Your task to perform on an android device: see creations saved in the google photos Image 0: 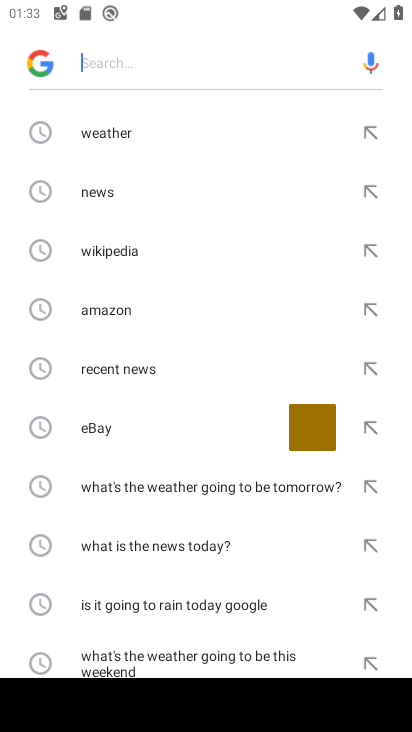
Step 0: press home button
Your task to perform on an android device: see creations saved in the google photos Image 1: 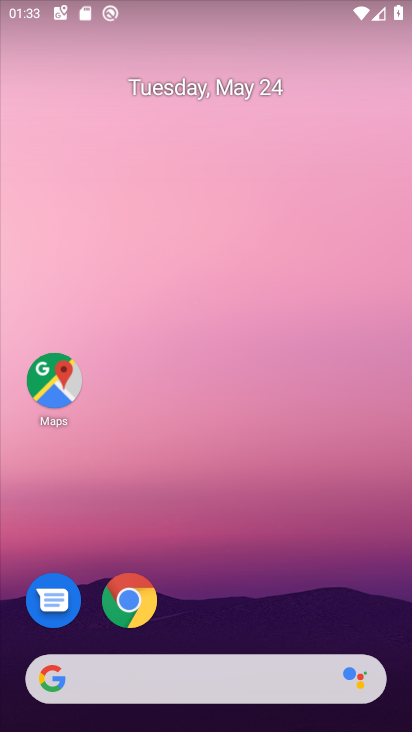
Step 1: drag from (198, 572) to (185, 235)
Your task to perform on an android device: see creations saved in the google photos Image 2: 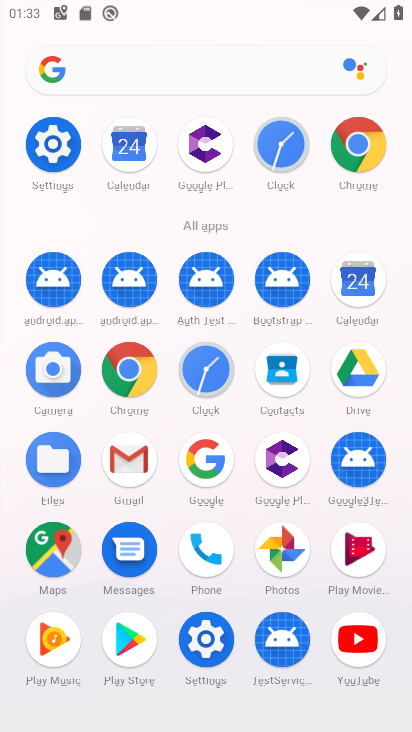
Step 2: click (282, 544)
Your task to perform on an android device: see creations saved in the google photos Image 3: 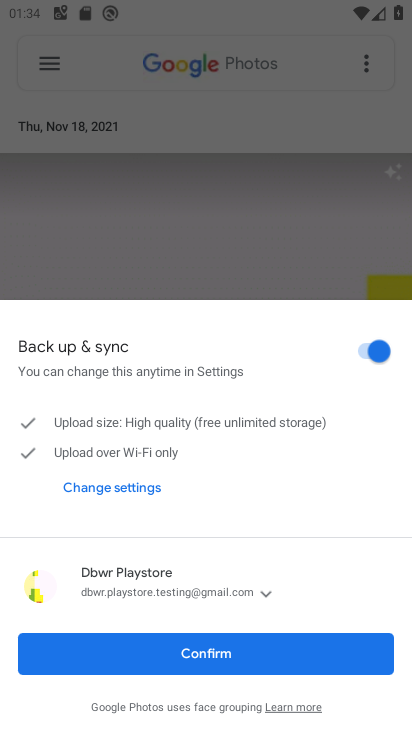
Step 3: click (243, 644)
Your task to perform on an android device: see creations saved in the google photos Image 4: 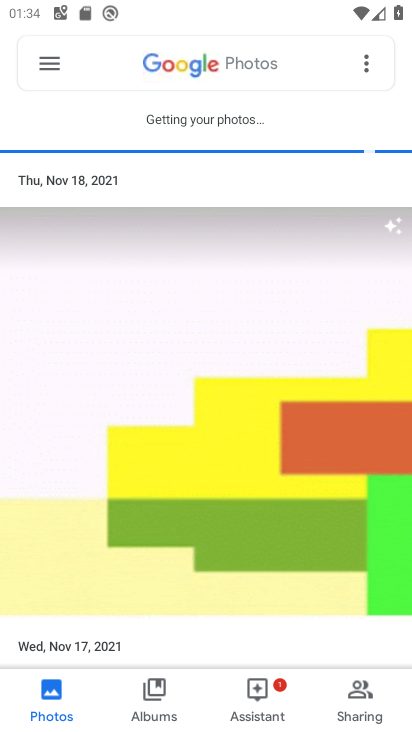
Step 4: task complete